Your task to perform on an android device: change notifications settings Image 0: 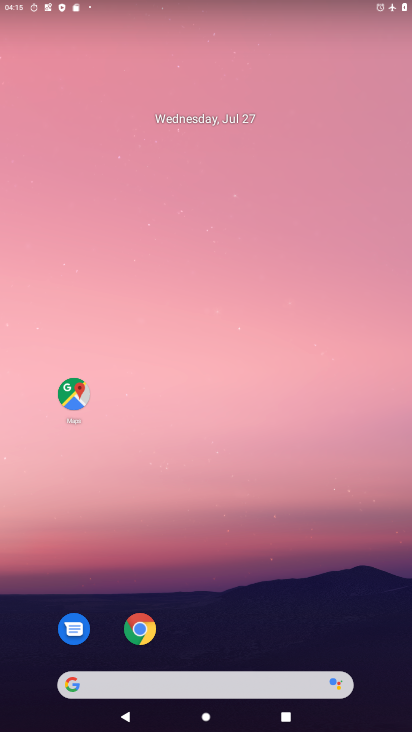
Step 0: drag from (257, 340) to (232, 77)
Your task to perform on an android device: change notifications settings Image 1: 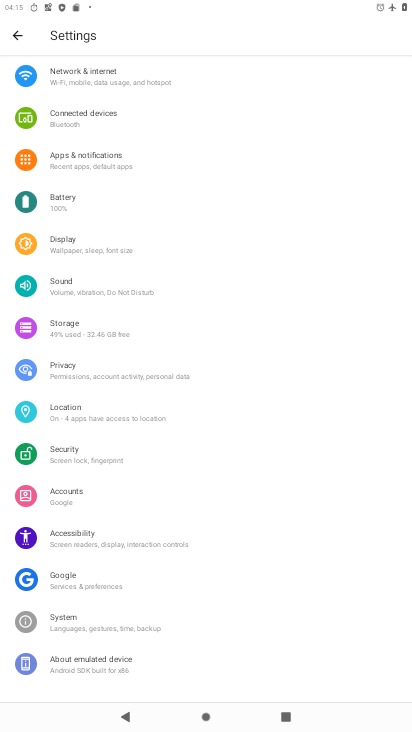
Step 1: click (115, 157)
Your task to perform on an android device: change notifications settings Image 2: 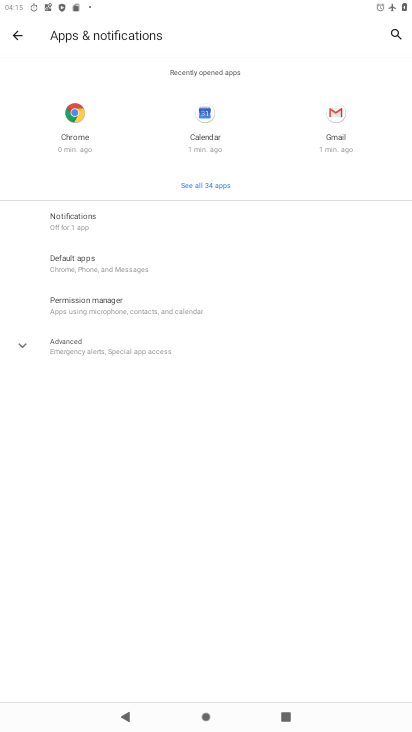
Step 2: click (81, 227)
Your task to perform on an android device: change notifications settings Image 3: 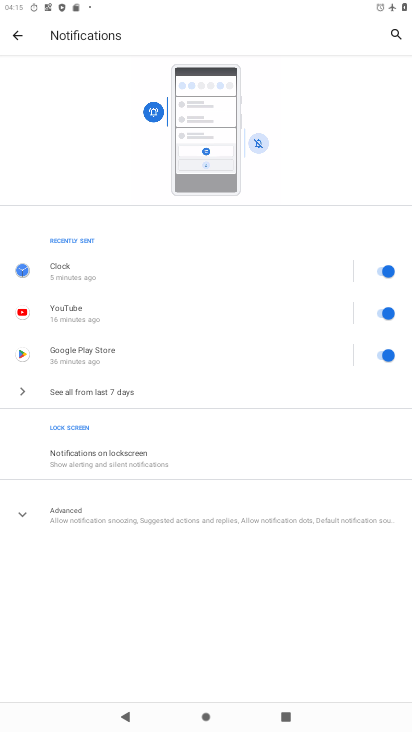
Step 3: task complete